Your task to perform on an android device: Go to Wikipedia Image 0: 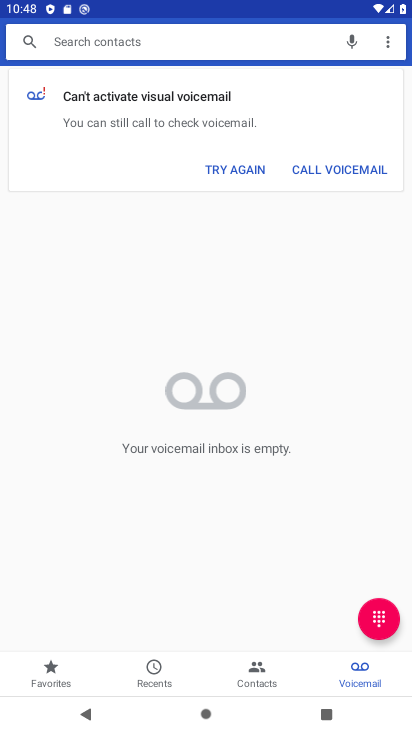
Step 0: press home button
Your task to perform on an android device: Go to Wikipedia Image 1: 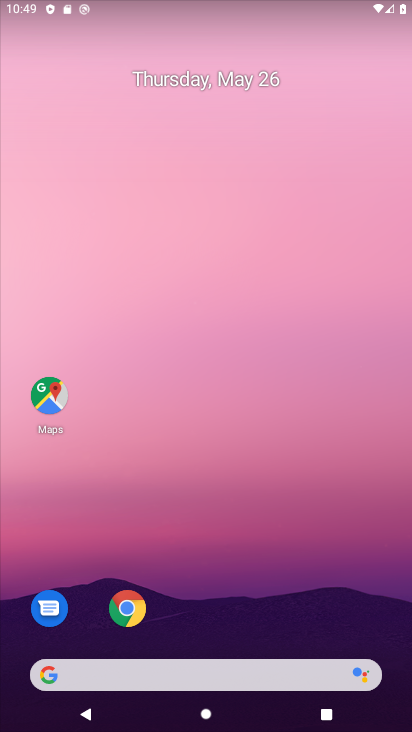
Step 1: click (128, 607)
Your task to perform on an android device: Go to Wikipedia Image 2: 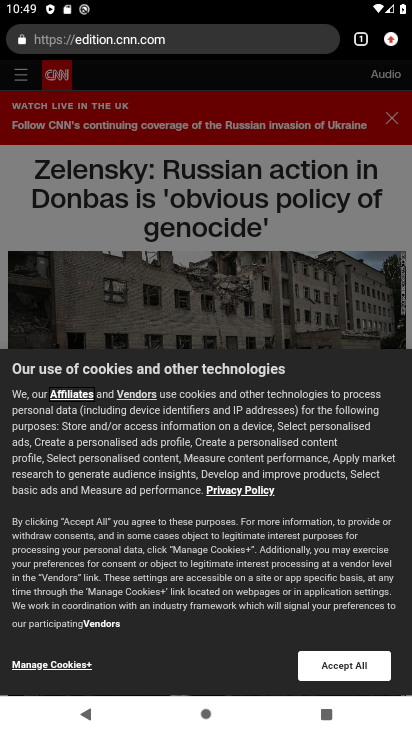
Step 2: click (234, 41)
Your task to perform on an android device: Go to Wikipedia Image 3: 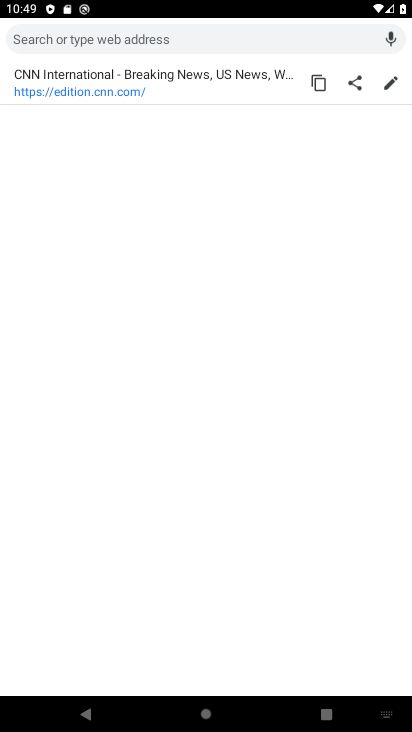
Step 3: type "wikipedia"
Your task to perform on an android device: Go to Wikipedia Image 4: 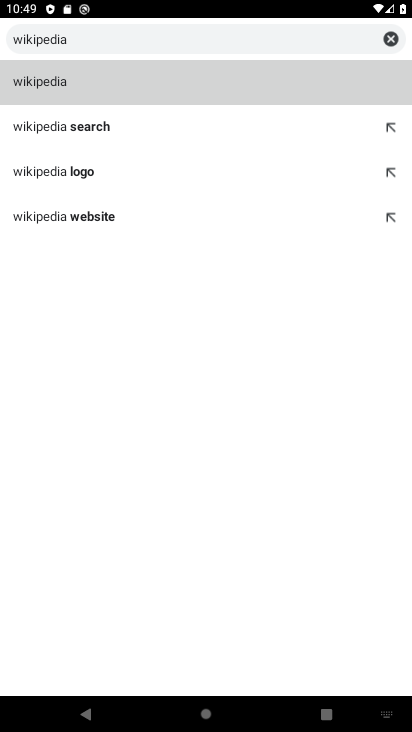
Step 4: click (51, 85)
Your task to perform on an android device: Go to Wikipedia Image 5: 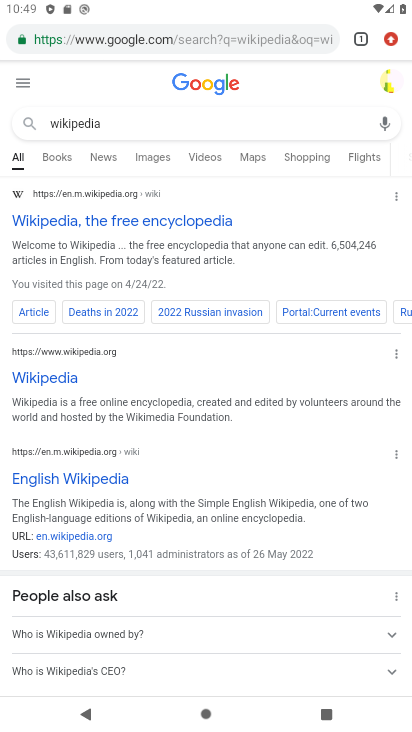
Step 5: click (73, 226)
Your task to perform on an android device: Go to Wikipedia Image 6: 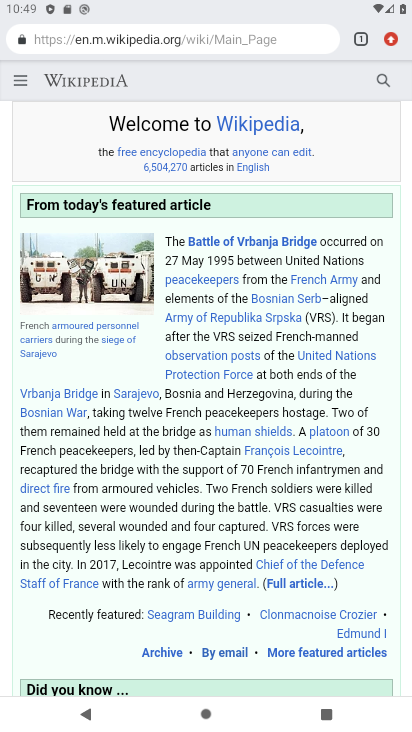
Step 6: task complete